Your task to perform on an android device: turn off notifications in google photos Image 0: 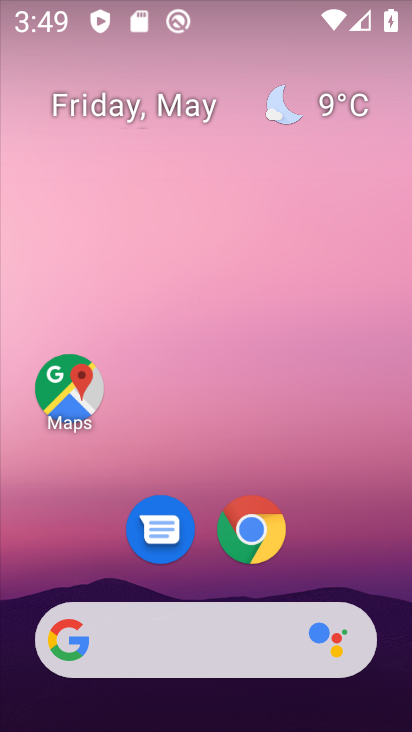
Step 0: drag from (93, 604) to (289, 151)
Your task to perform on an android device: turn off notifications in google photos Image 1: 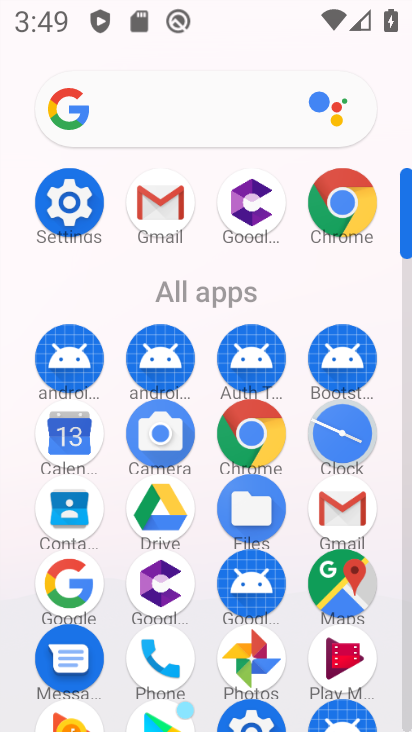
Step 1: click (263, 649)
Your task to perform on an android device: turn off notifications in google photos Image 2: 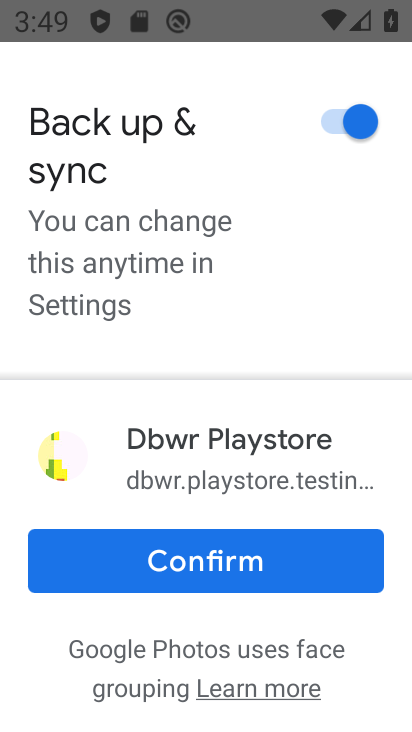
Step 2: click (289, 584)
Your task to perform on an android device: turn off notifications in google photos Image 3: 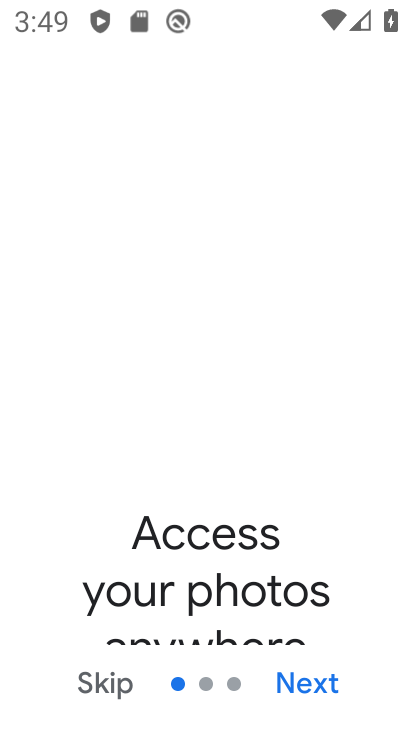
Step 3: click (326, 696)
Your task to perform on an android device: turn off notifications in google photos Image 4: 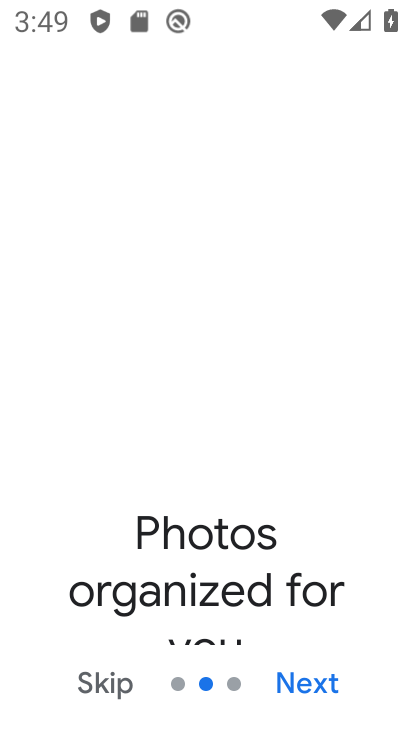
Step 4: click (326, 696)
Your task to perform on an android device: turn off notifications in google photos Image 5: 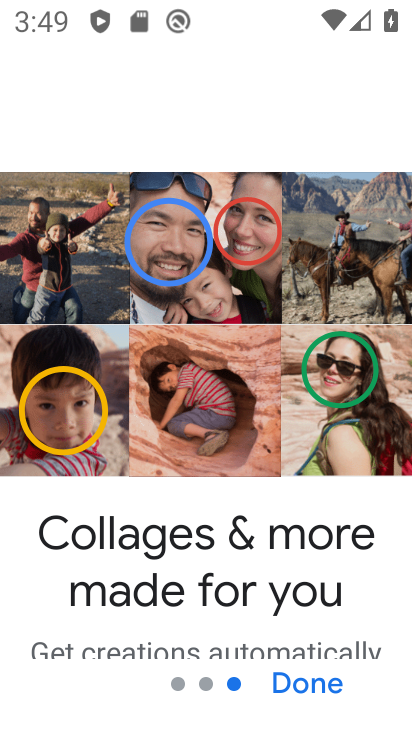
Step 5: click (326, 696)
Your task to perform on an android device: turn off notifications in google photos Image 6: 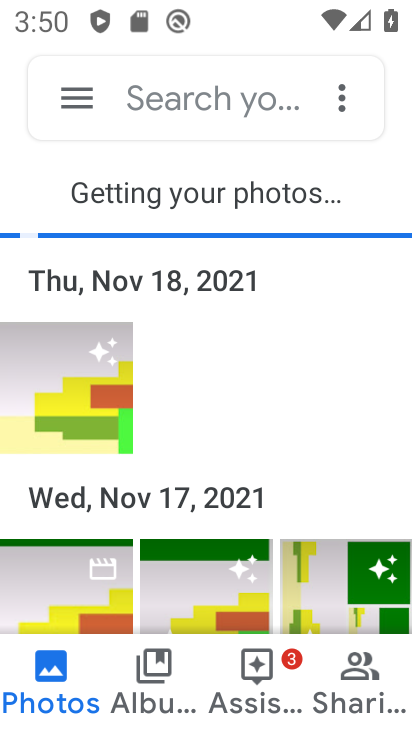
Step 6: click (68, 96)
Your task to perform on an android device: turn off notifications in google photos Image 7: 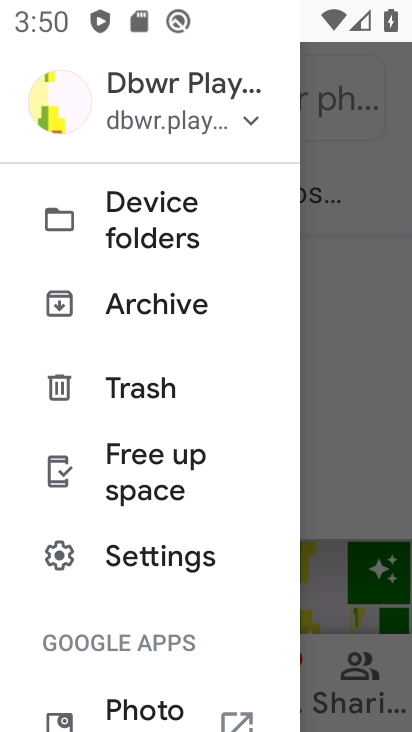
Step 7: click (124, 559)
Your task to perform on an android device: turn off notifications in google photos Image 8: 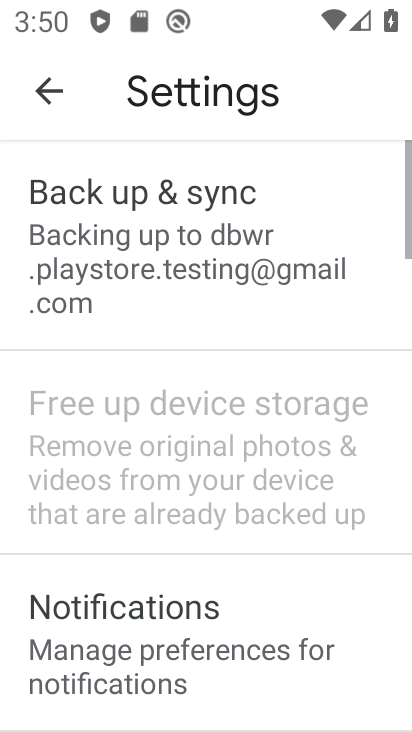
Step 8: drag from (125, 556) to (249, 263)
Your task to perform on an android device: turn off notifications in google photos Image 9: 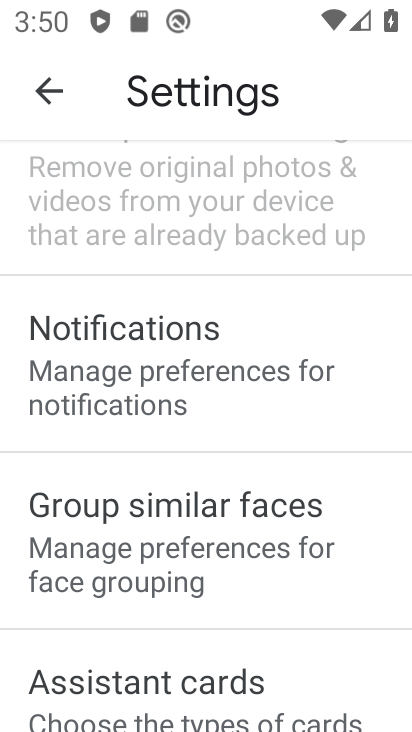
Step 9: click (163, 401)
Your task to perform on an android device: turn off notifications in google photos Image 10: 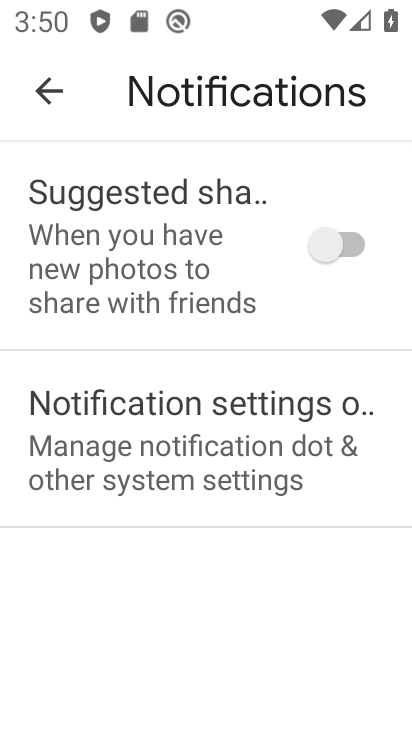
Step 10: click (218, 437)
Your task to perform on an android device: turn off notifications in google photos Image 11: 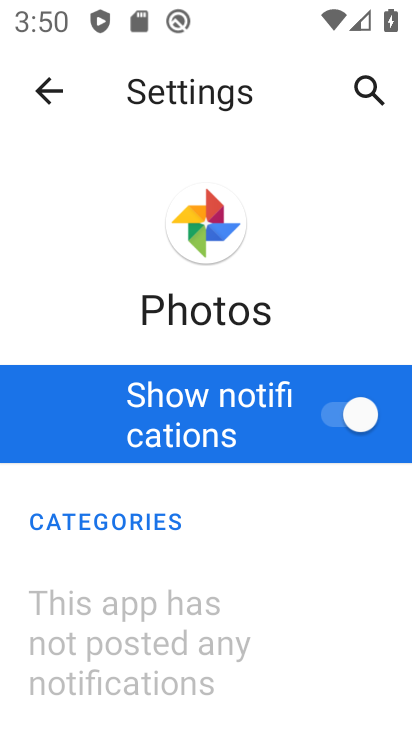
Step 11: click (342, 406)
Your task to perform on an android device: turn off notifications in google photos Image 12: 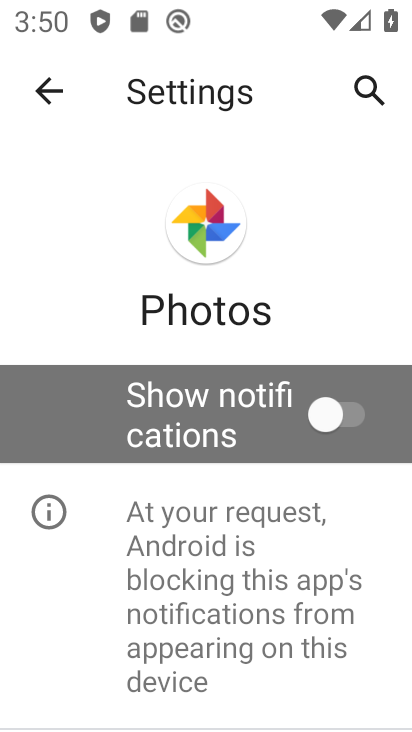
Step 12: task complete